Your task to perform on an android device: turn on location history Image 0: 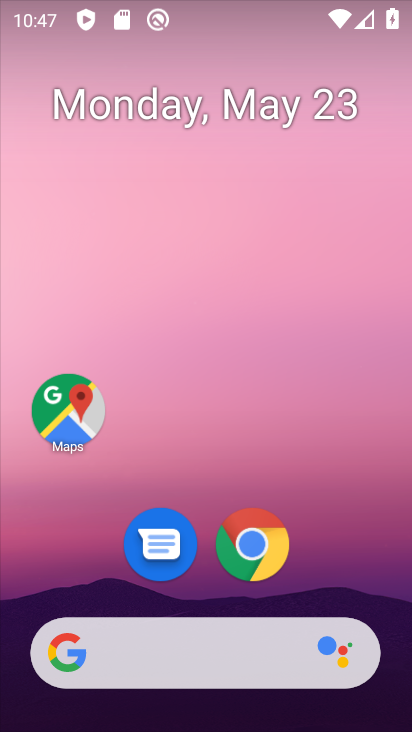
Step 0: click (70, 410)
Your task to perform on an android device: turn on location history Image 1: 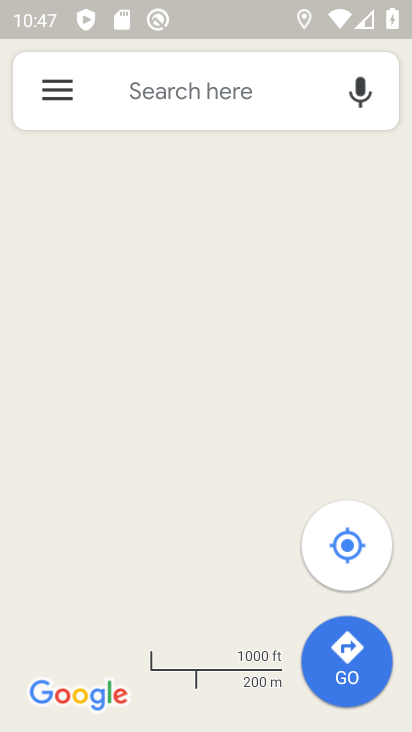
Step 1: click (52, 89)
Your task to perform on an android device: turn on location history Image 2: 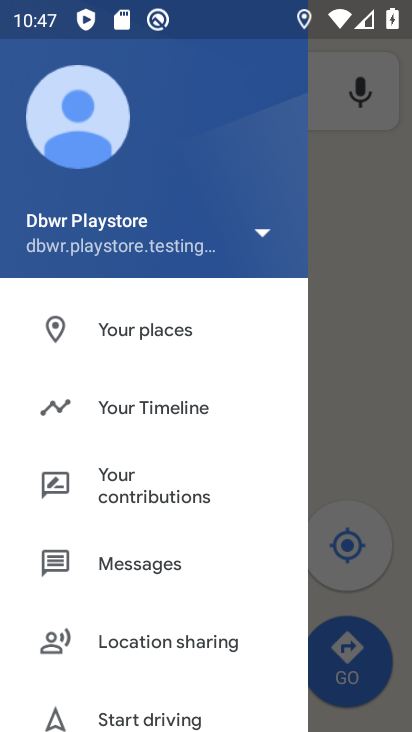
Step 2: drag from (230, 561) to (222, 338)
Your task to perform on an android device: turn on location history Image 3: 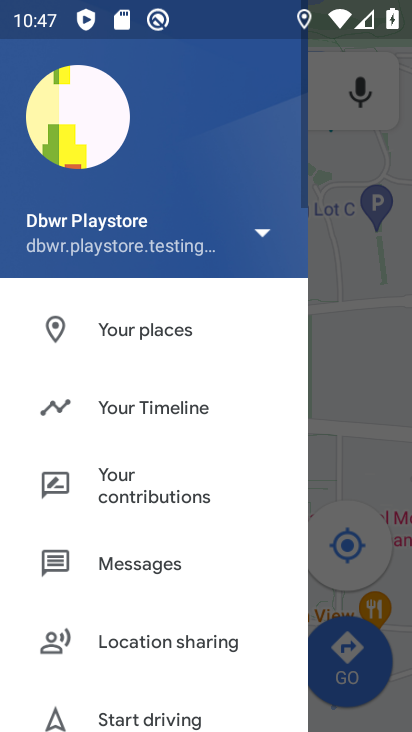
Step 3: drag from (197, 622) to (204, 232)
Your task to perform on an android device: turn on location history Image 4: 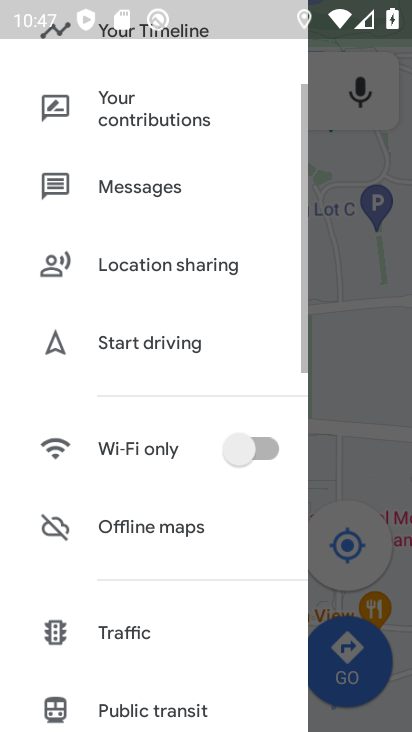
Step 4: drag from (200, 666) to (164, 244)
Your task to perform on an android device: turn on location history Image 5: 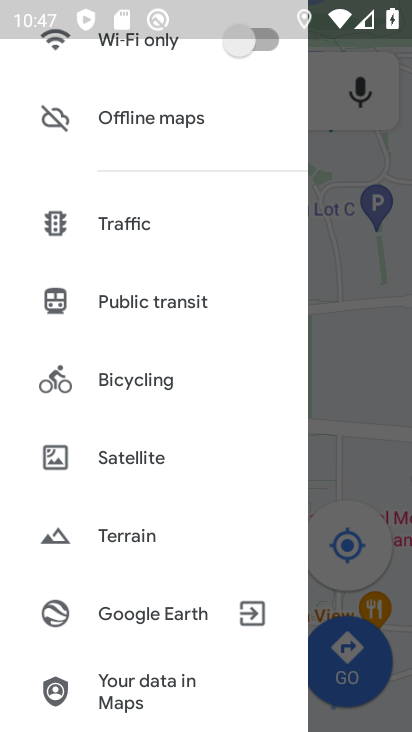
Step 5: drag from (189, 676) to (189, 179)
Your task to perform on an android device: turn on location history Image 6: 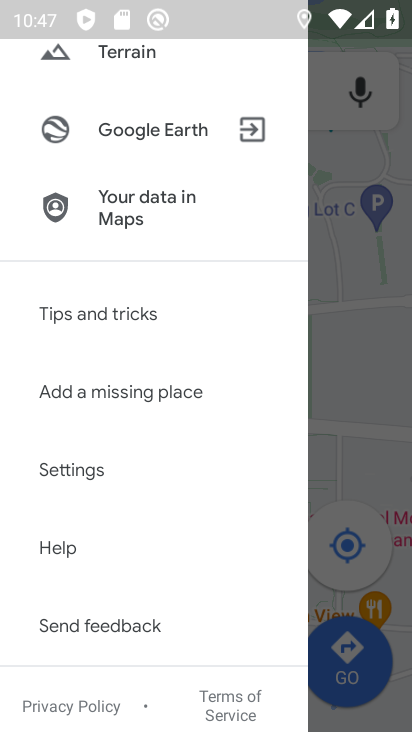
Step 6: click (81, 477)
Your task to perform on an android device: turn on location history Image 7: 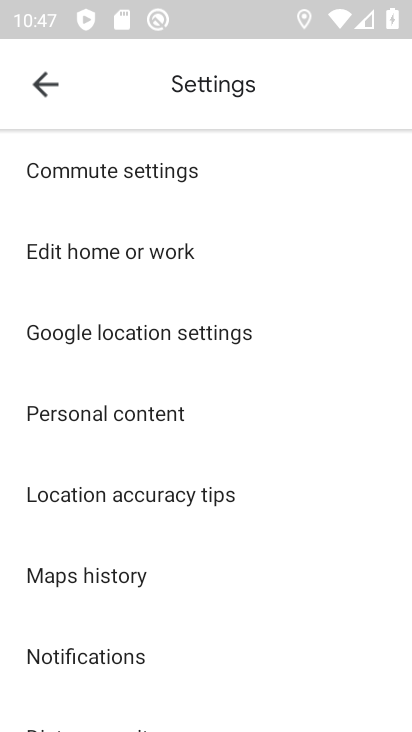
Step 7: click (81, 412)
Your task to perform on an android device: turn on location history Image 8: 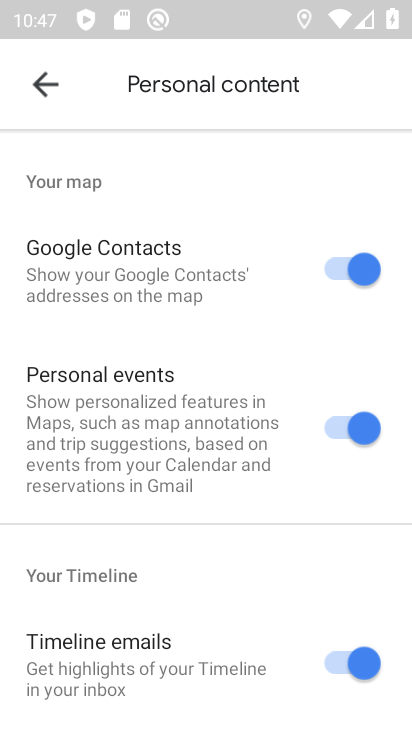
Step 8: drag from (267, 591) to (246, 335)
Your task to perform on an android device: turn on location history Image 9: 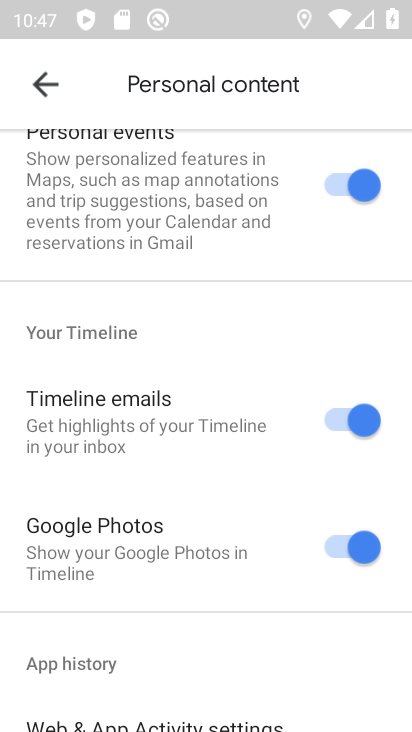
Step 9: drag from (248, 669) to (217, 215)
Your task to perform on an android device: turn on location history Image 10: 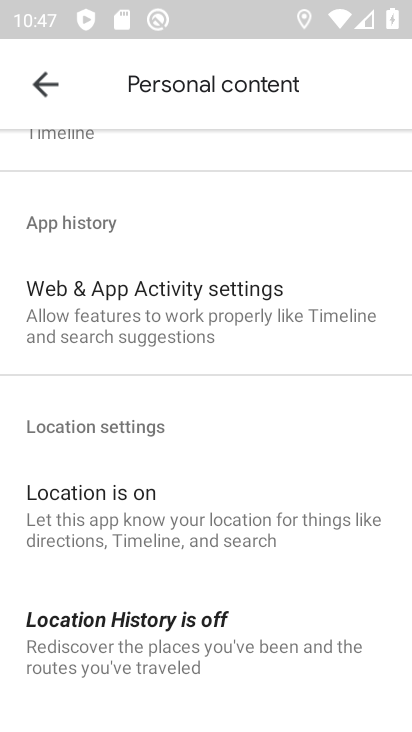
Step 10: click (107, 634)
Your task to perform on an android device: turn on location history Image 11: 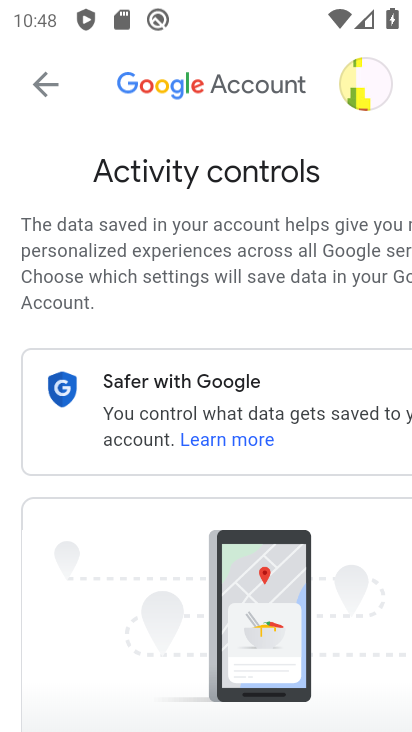
Step 11: task complete